Your task to perform on an android device: Search for sushi restaurants on Maps Image 0: 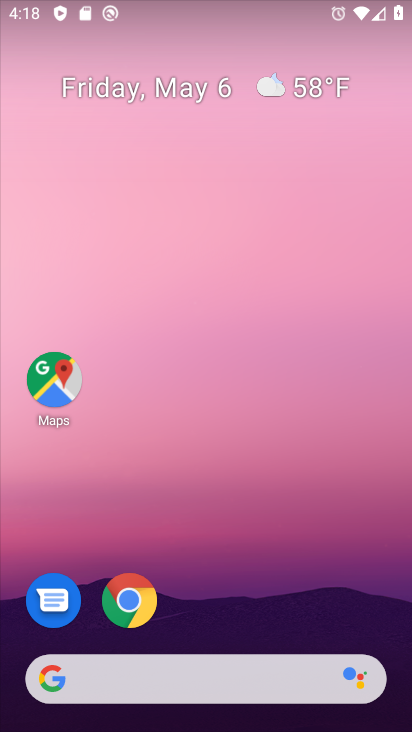
Step 0: drag from (218, 624) to (299, 63)
Your task to perform on an android device: Search for sushi restaurants on Maps Image 1: 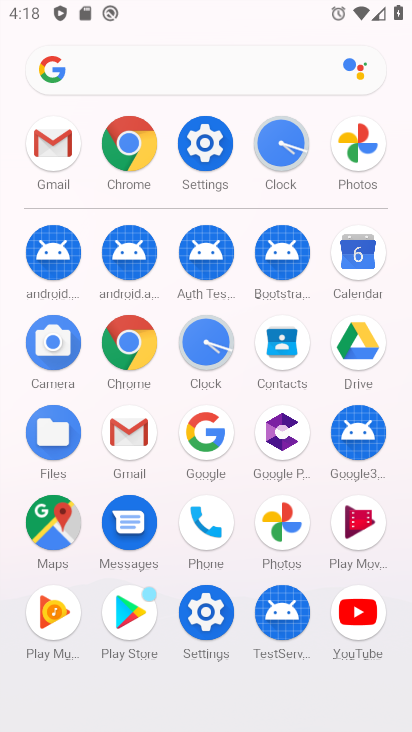
Step 1: click (50, 520)
Your task to perform on an android device: Search for sushi restaurants on Maps Image 2: 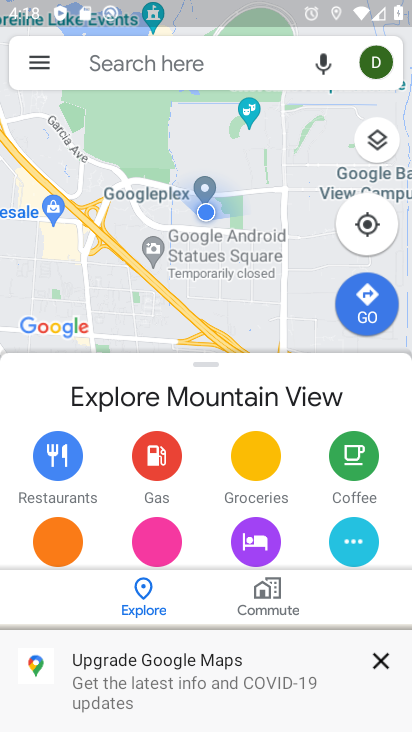
Step 2: click (131, 70)
Your task to perform on an android device: Search for sushi restaurants on Maps Image 3: 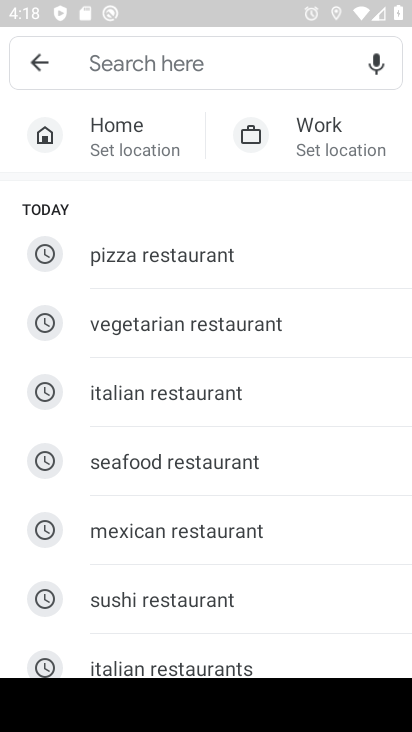
Step 3: type "sushi restaurants"
Your task to perform on an android device: Search for sushi restaurants on Maps Image 4: 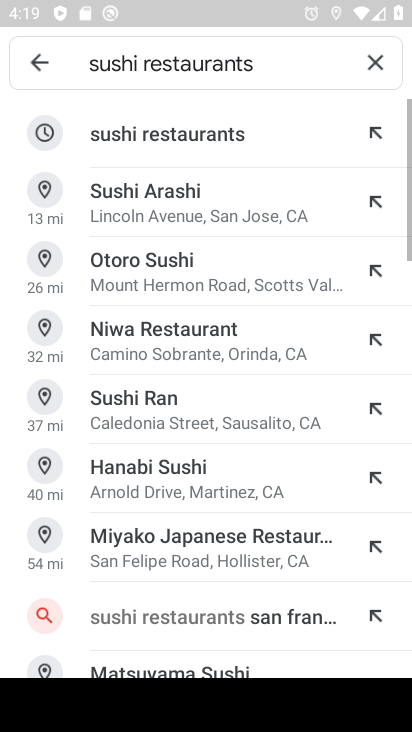
Step 4: click (151, 134)
Your task to perform on an android device: Search for sushi restaurants on Maps Image 5: 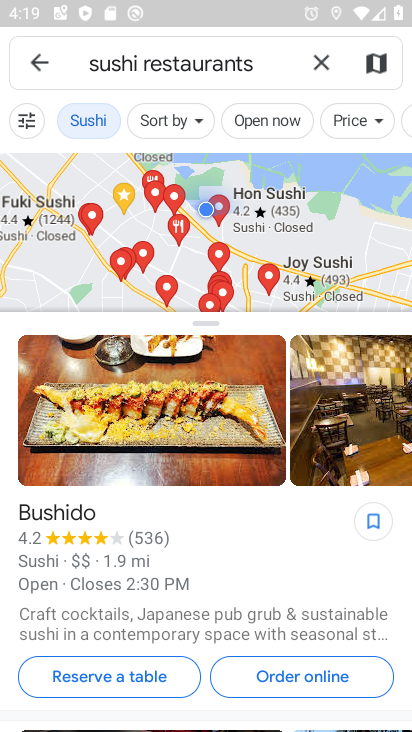
Step 5: task complete